Your task to perform on an android device: turn on improve location accuracy Image 0: 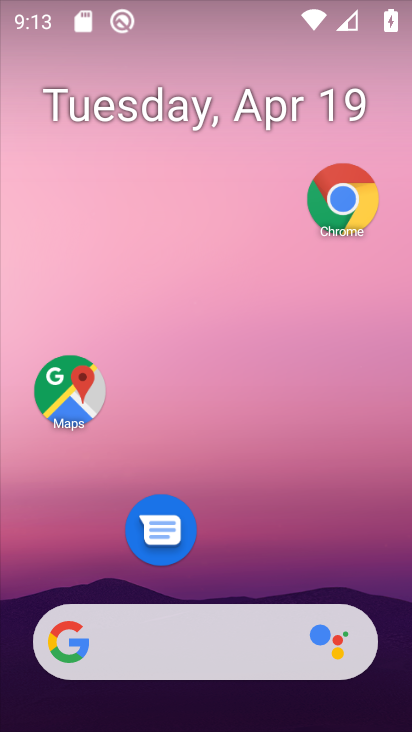
Step 0: drag from (231, 574) to (329, 89)
Your task to perform on an android device: turn on improve location accuracy Image 1: 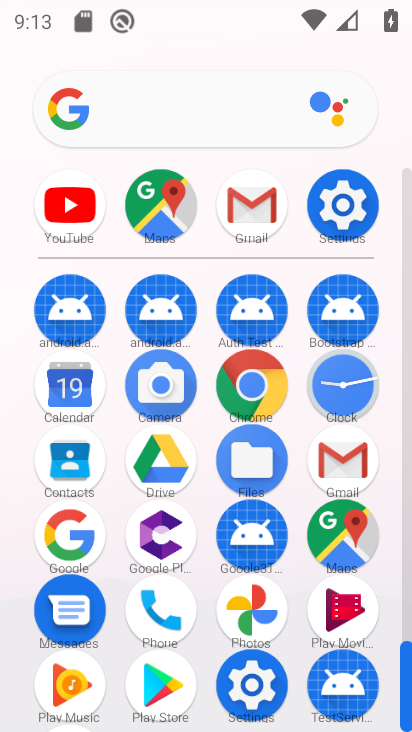
Step 1: drag from (209, 660) to (214, 166)
Your task to perform on an android device: turn on improve location accuracy Image 2: 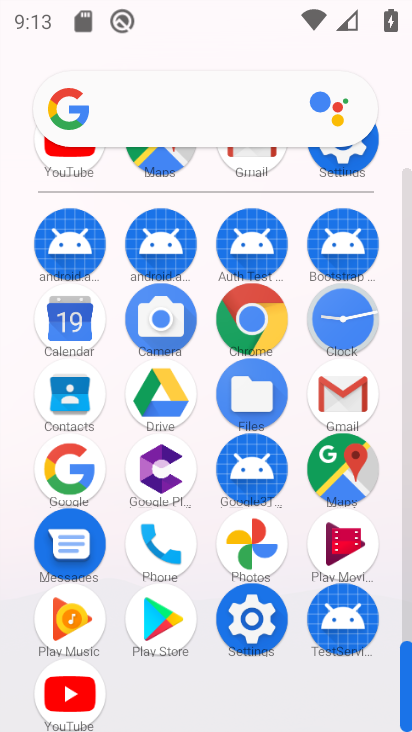
Step 2: click (253, 619)
Your task to perform on an android device: turn on improve location accuracy Image 3: 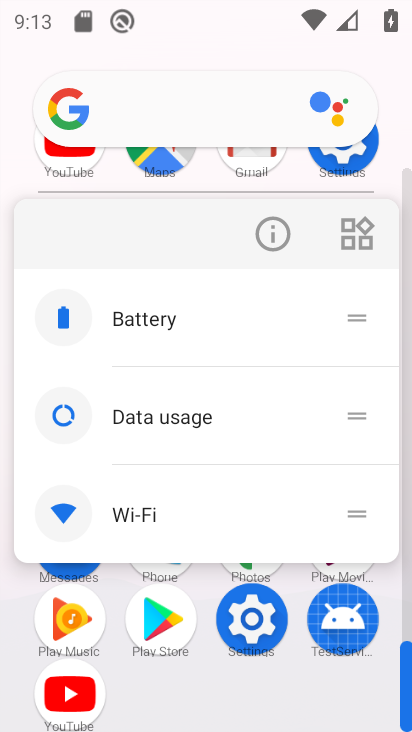
Step 3: click (266, 233)
Your task to perform on an android device: turn on improve location accuracy Image 4: 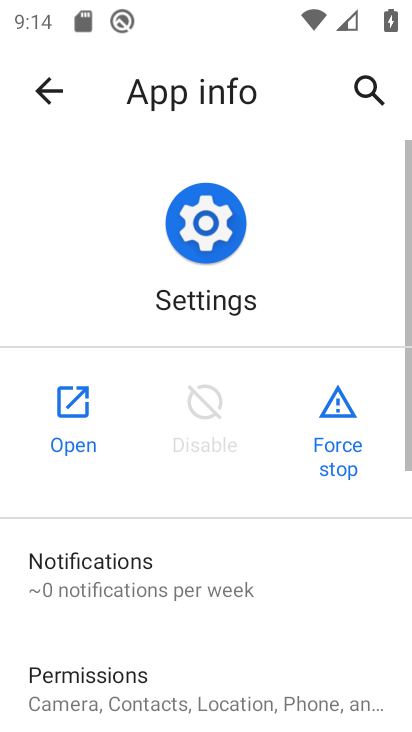
Step 4: click (78, 420)
Your task to perform on an android device: turn on improve location accuracy Image 5: 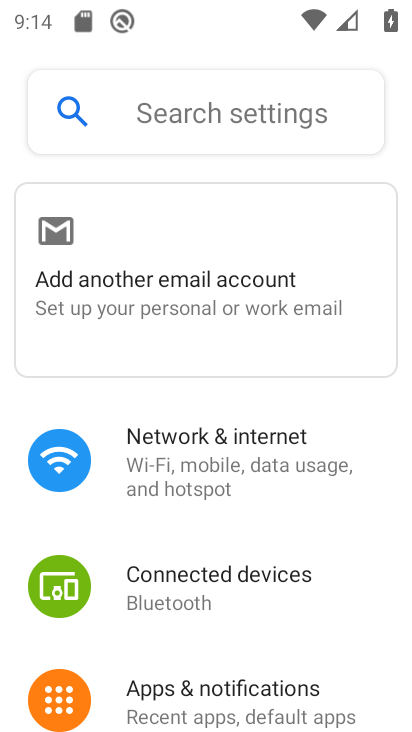
Step 5: drag from (214, 654) to (288, 175)
Your task to perform on an android device: turn on improve location accuracy Image 6: 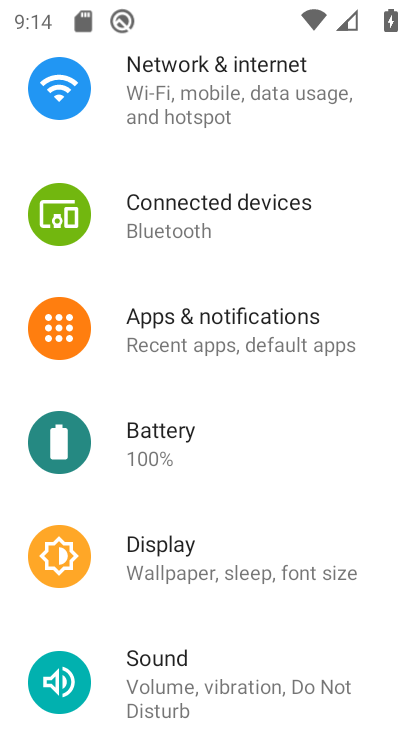
Step 6: drag from (230, 604) to (335, 44)
Your task to perform on an android device: turn on improve location accuracy Image 7: 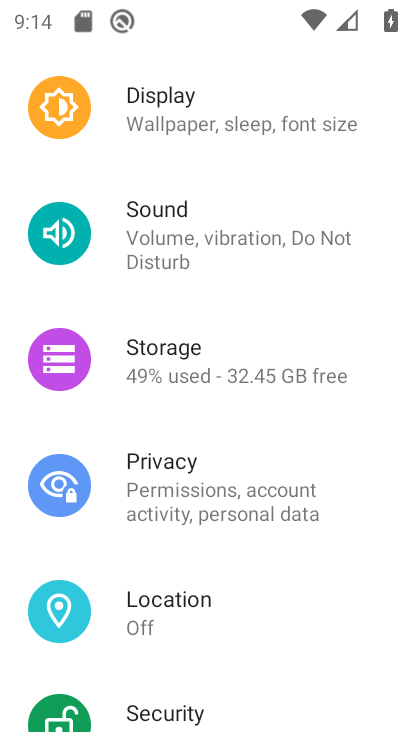
Step 7: drag from (222, 658) to (285, 238)
Your task to perform on an android device: turn on improve location accuracy Image 8: 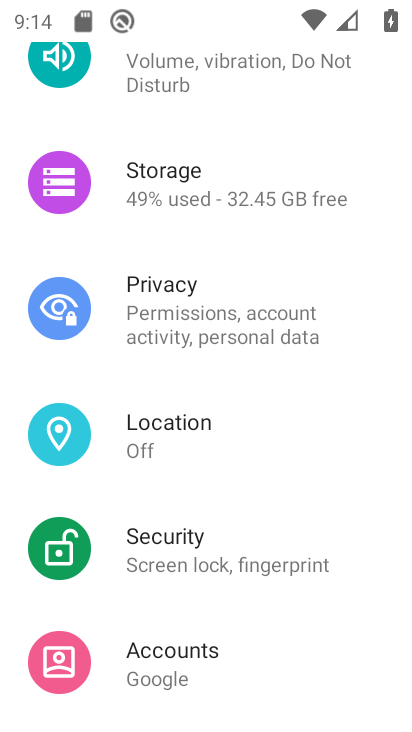
Step 8: drag from (284, 257) to (266, 573)
Your task to perform on an android device: turn on improve location accuracy Image 9: 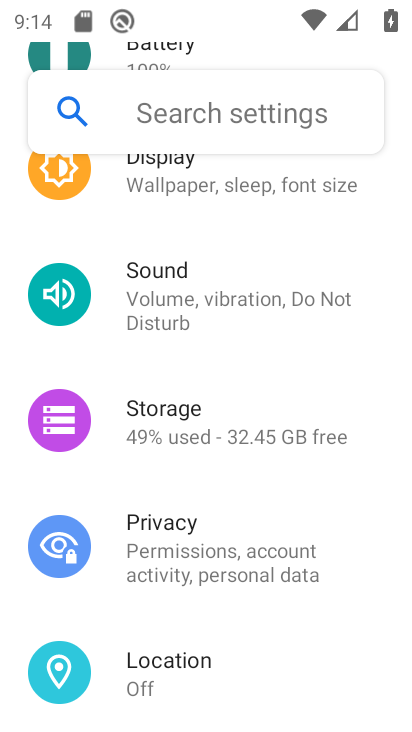
Step 9: click (183, 682)
Your task to perform on an android device: turn on improve location accuracy Image 10: 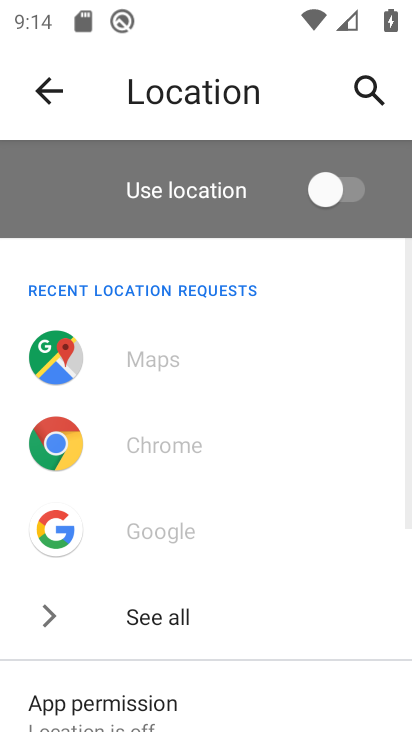
Step 10: drag from (236, 604) to (345, 29)
Your task to perform on an android device: turn on improve location accuracy Image 11: 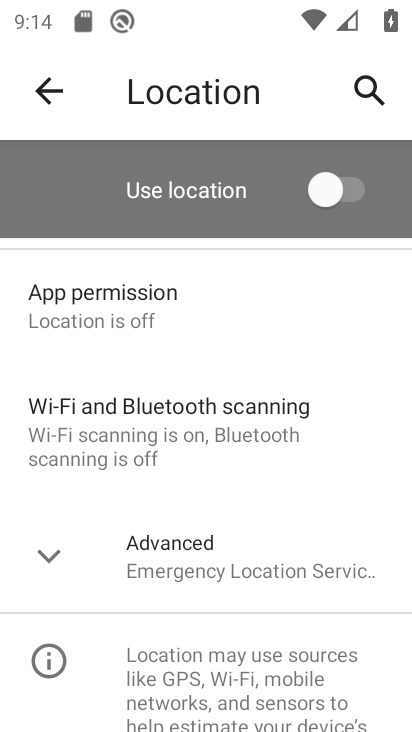
Step 11: click (202, 545)
Your task to perform on an android device: turn on improve location accuracy Image 12: 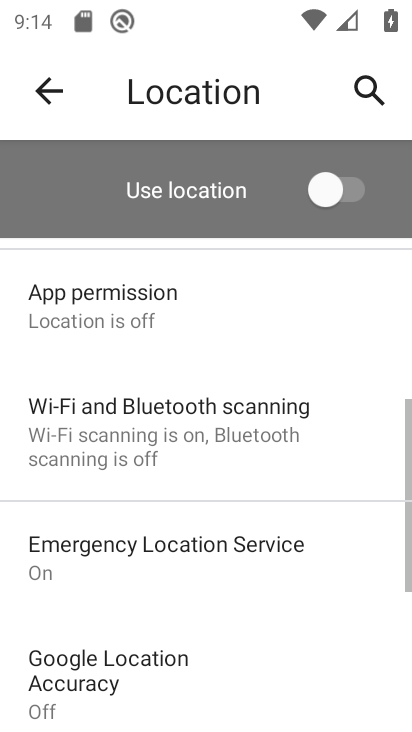
Step 12: drag from (249, 670) to (355, 215)
Your task to perform on an android device: turn on improve location accuracy Image 13: 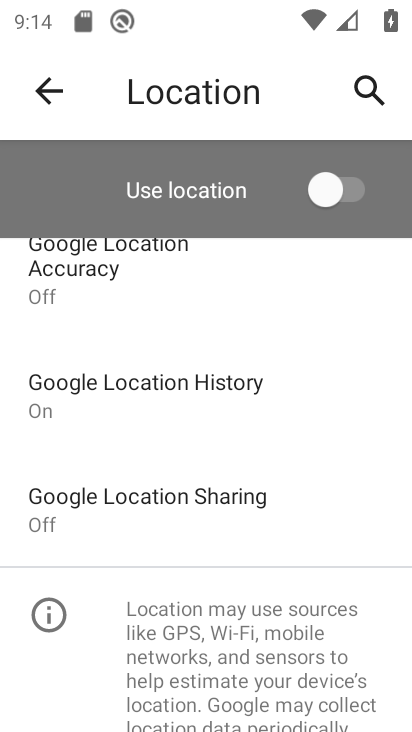
Step 13: click (187, 283)
Your task to perform on an android device: turn on improve location accuracy Image 14: 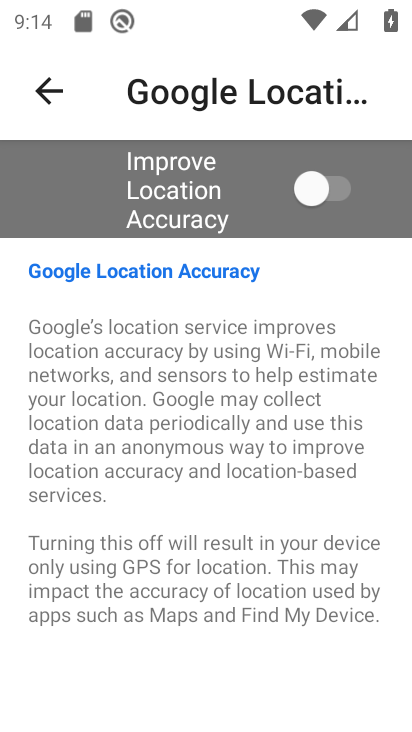
Step 14: click (315, 204)
Your task to perform on an android device: turn on improve location accuracy Image 15: 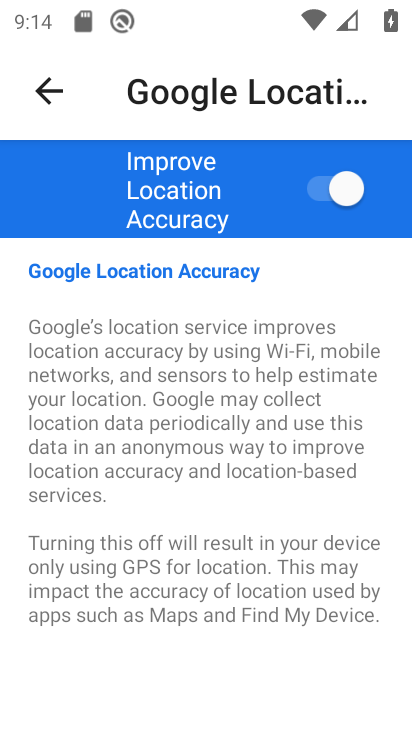
Step 15: task complete